Your task to perform on an android device: Check the news Image 0: 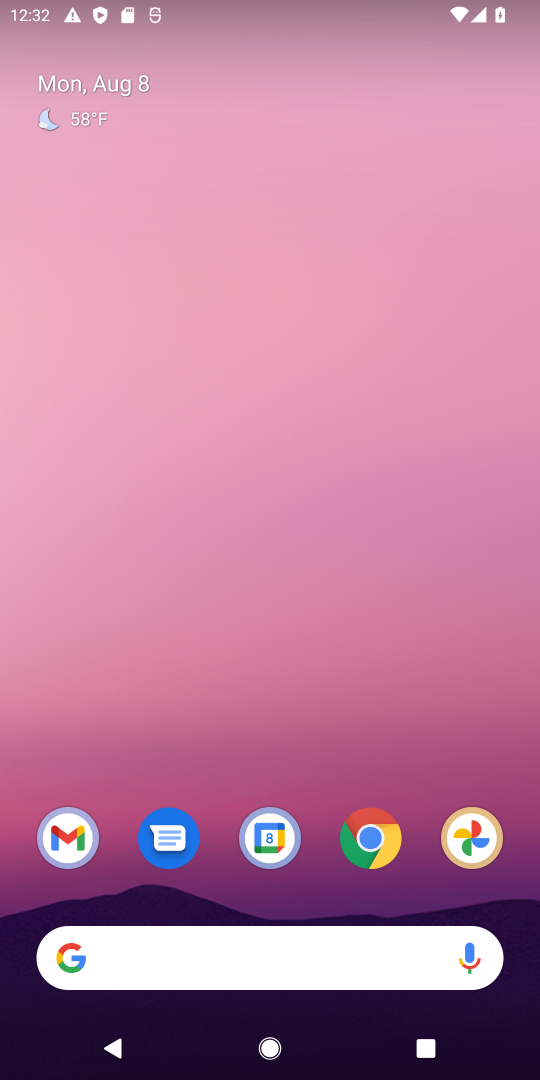
Step 0: press home button
Your task to perform on an android device: Check the news Image 1: 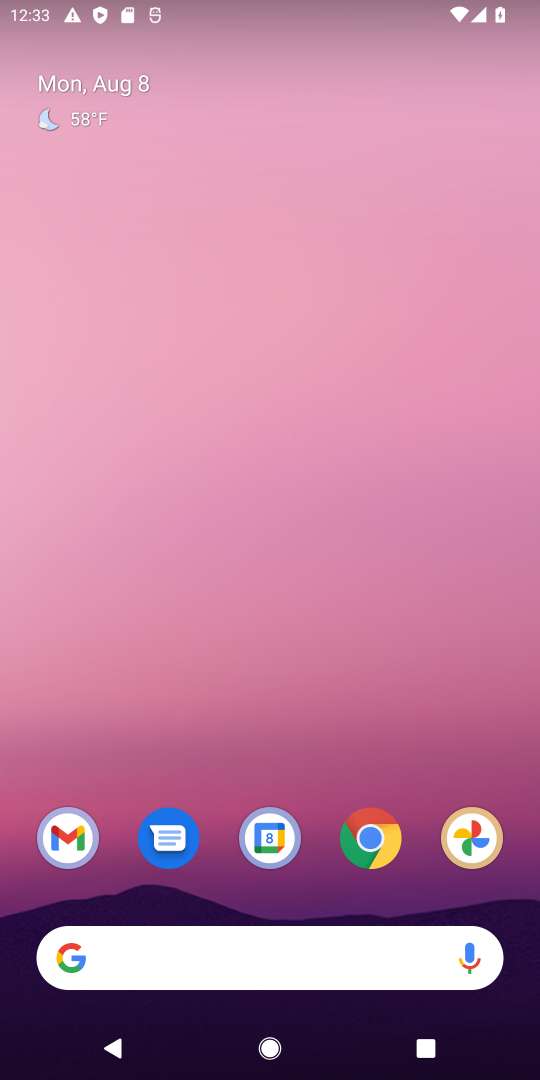
Step 1: click (65, 956)
Your task to perform on an android device: Check the news Image 2: 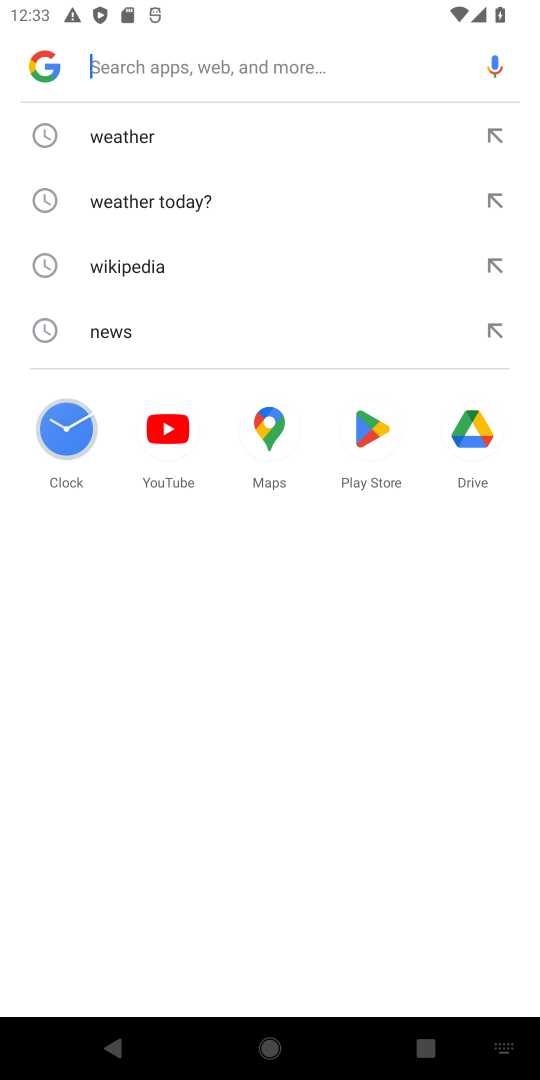
Step 2: click (121, 324)
Your task to perform on an android device: Check the news Image 3: 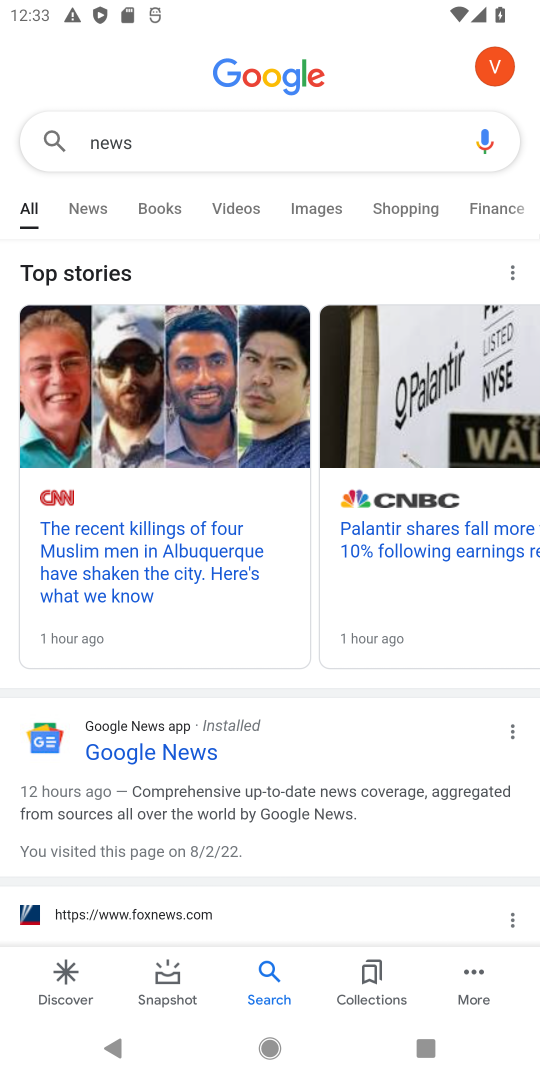
Step 3: task complete